Your task to perform on an android device: open chrome and create a bookmark for the current page Image 0: 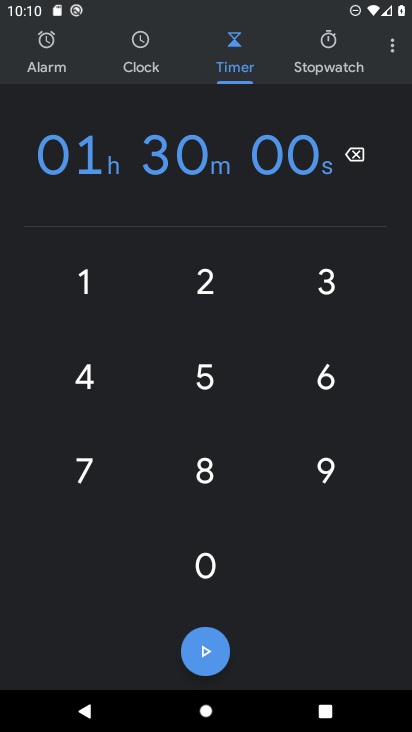
Step 0: press home button
Your task to perform on an android device: open chrome and create a bookmark for the current page Image 1: 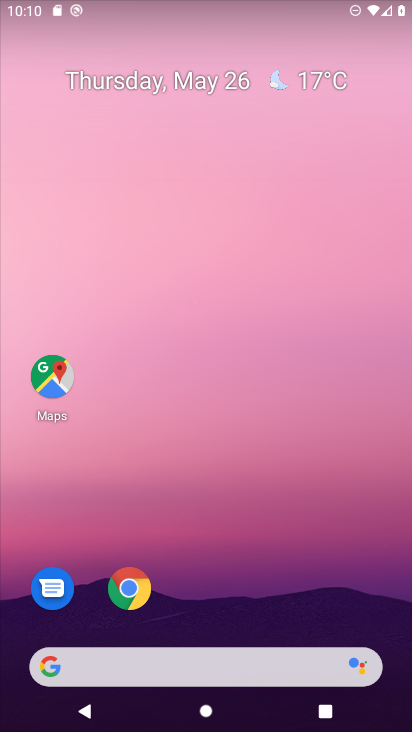
Step 1: click (131, 589)
Your task to perform on an android device: open chrome and create a bookmark for the current page Image 2: 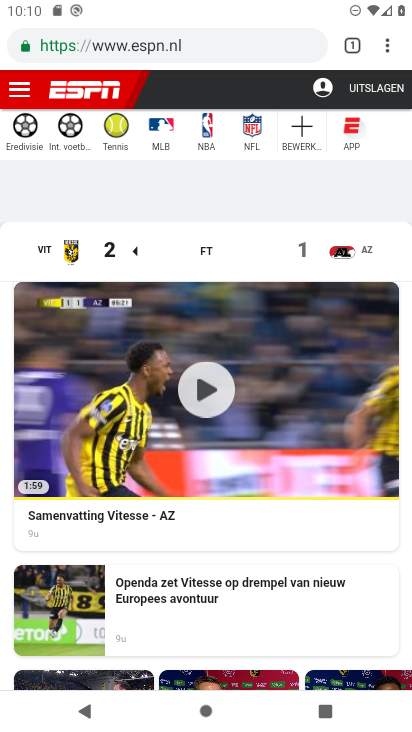
Step 2: click (385, 53)
Your task to perform on an android device: open chrome and create a bookmark for the current page Image 3: 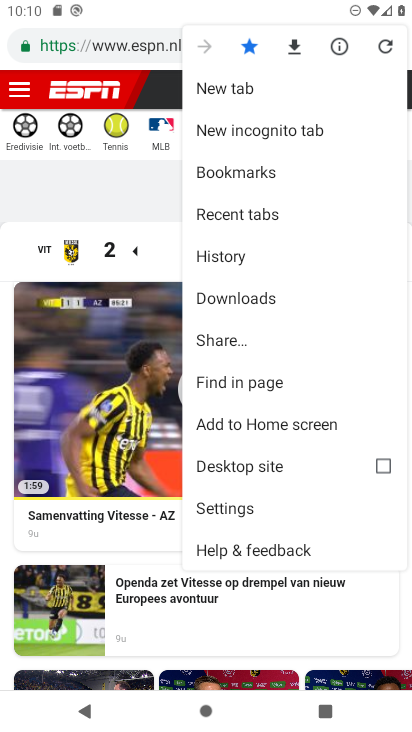
Step 3: task complete